Your task to perform on an android device: Open Amazon Image 0: 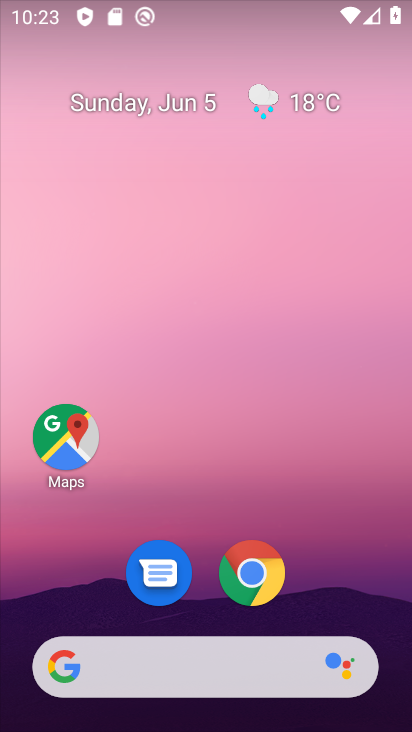
Step 0: click (252, 575)
Your task to perform on an android device: Open Amazon Image 1: 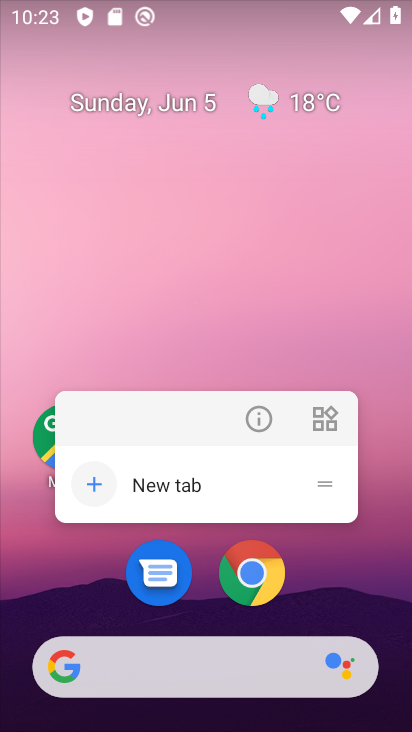
Step 1: click (252, 574)
Your task to perform on an android device: Open Amazon Image 2: 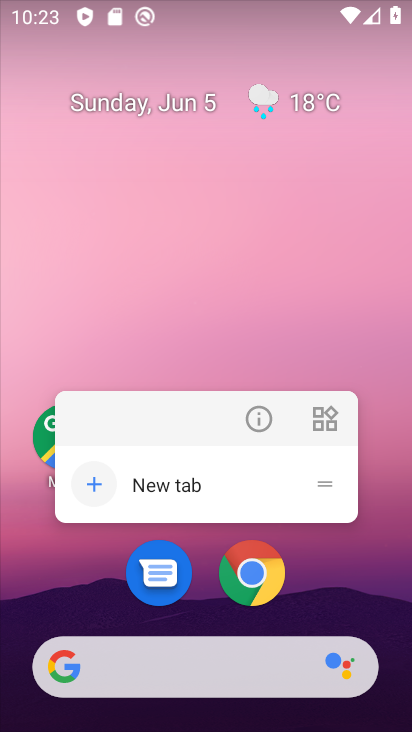
Step 2: click (252, 574)
Your task to perform on an android device: Open Amazon Image 3: 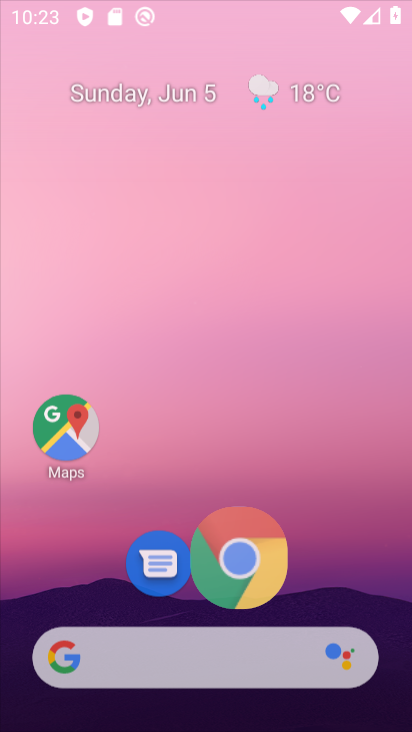
Step 3: click (255, 571)
Your task to perform on an android device: Open Amazon Image 4: 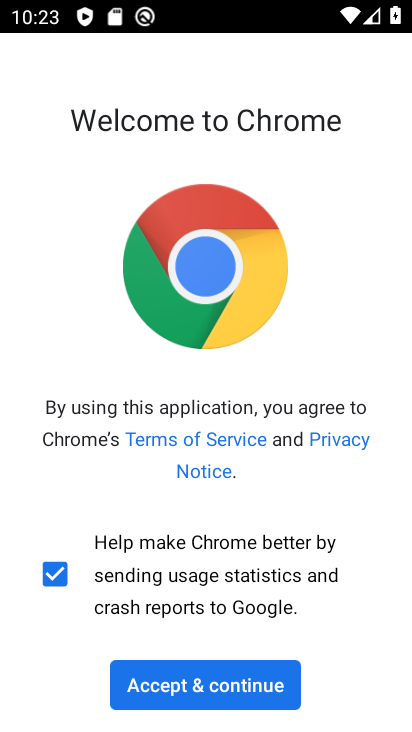
Step 4: click (229, 693)
Your task to perform on an android device: Open Amazon Image 5: 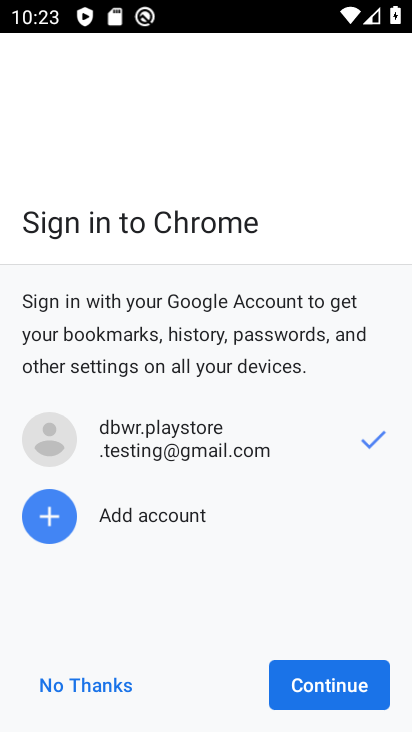
Step 5: click (297, 678)
Your task to perform on an android device: Open Amazon Image 6: 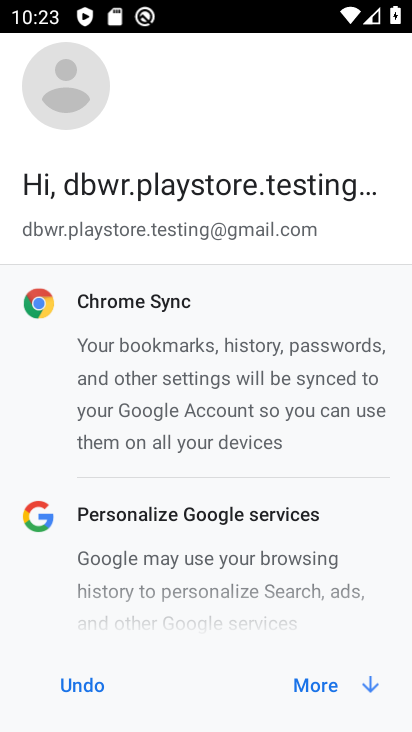
Step 6: click (301, 677)
Your task to perform on an android device: Open Amazon Image 7: 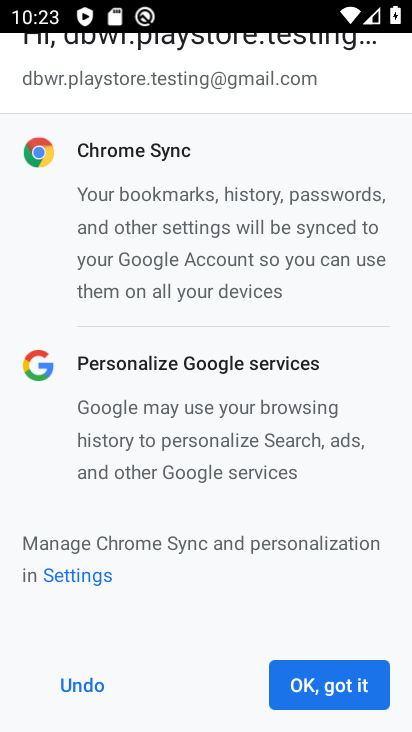
Step 7: click (303, 677)
Your task to perform on an android device: Open Amazon Image 8: 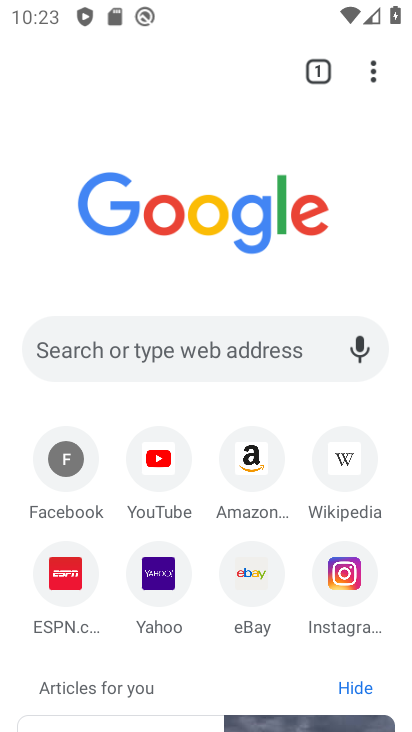
Step 8: click (255, 484)
Your task to perform on an android device: Open Amazon Image 9: 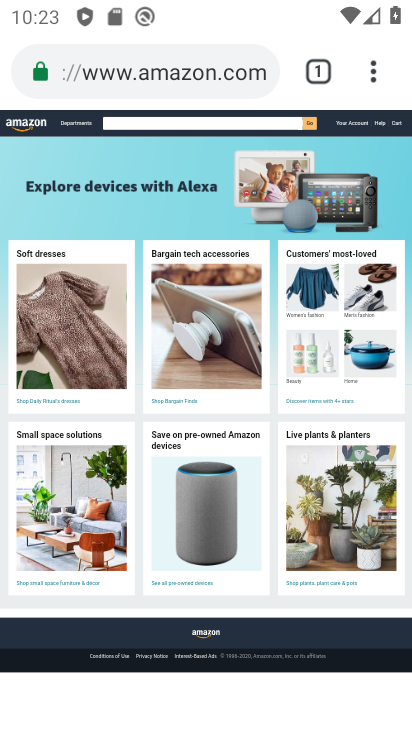
Step 9: task complete